Your task to perform on an android device: Go to privacy settings Image 0: 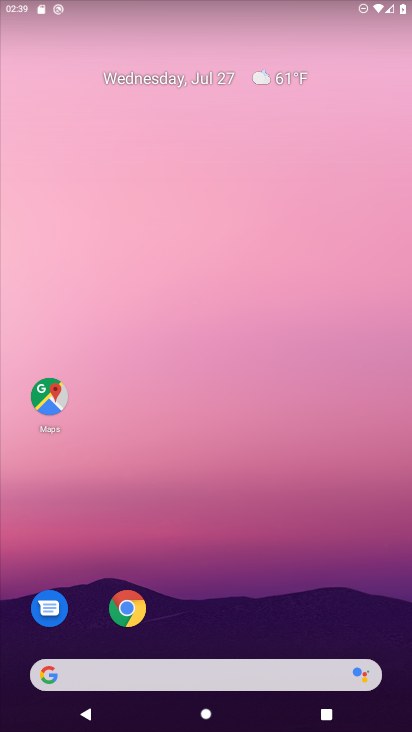
Step 0: drag from (256, 644) to (248, 122)
Your task to perform on an android device: Go to privacy settings Image 1: 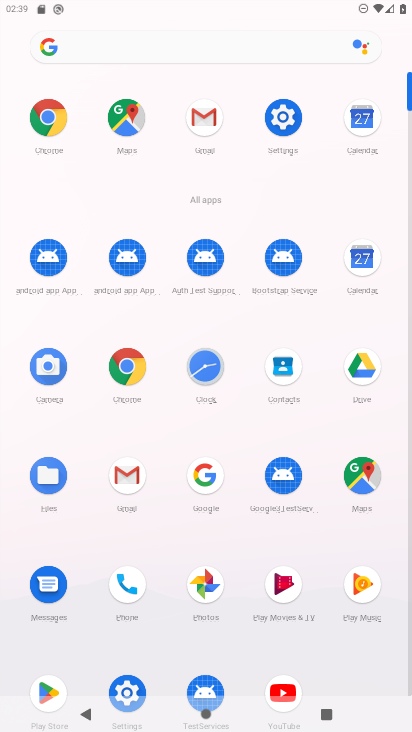
Step 1: click (277, 118)
Your task to perform on an android device: Go to privacy settings Image 2: 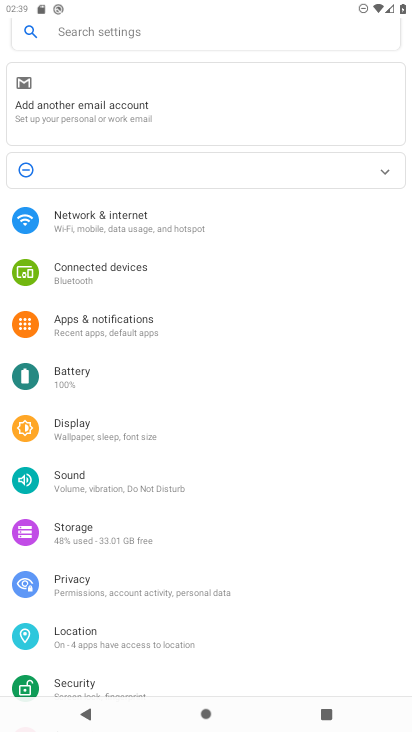
Step 2: click (192, 594)
Your task to perform on an android device: Go to privacy settings Image 3: 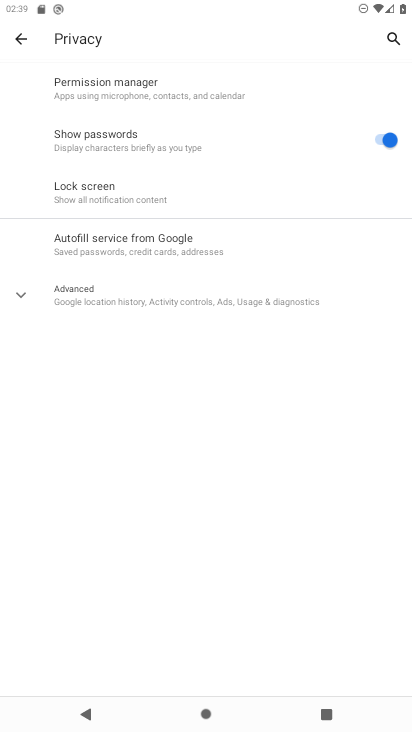
Step 3: task complete